Your task to perform on an android device: install app "YouTube Kids" Image 0: 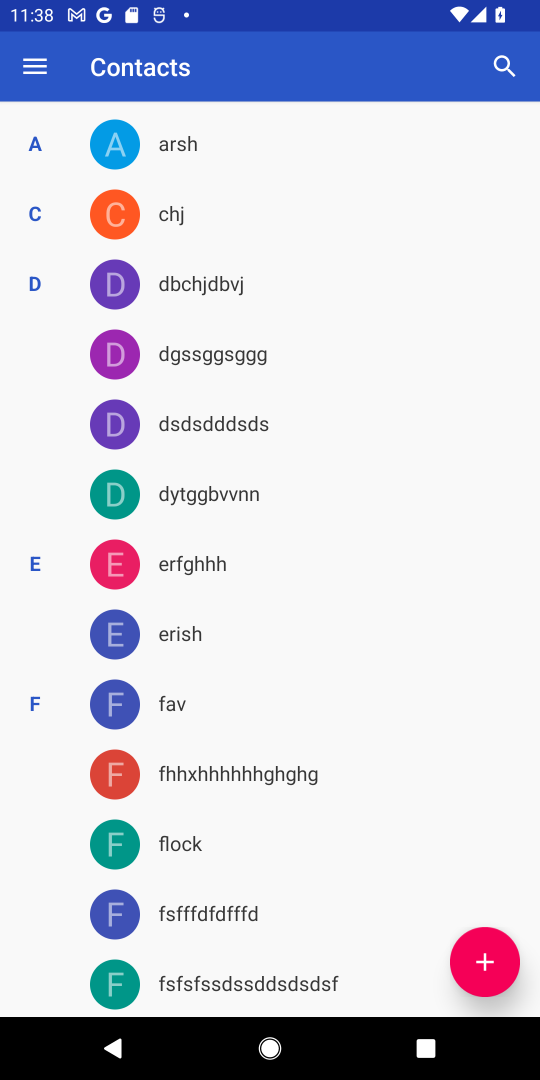
Step 0: press home button
Your task to perform on an android device: install app "YouTube Kids" Image 1: 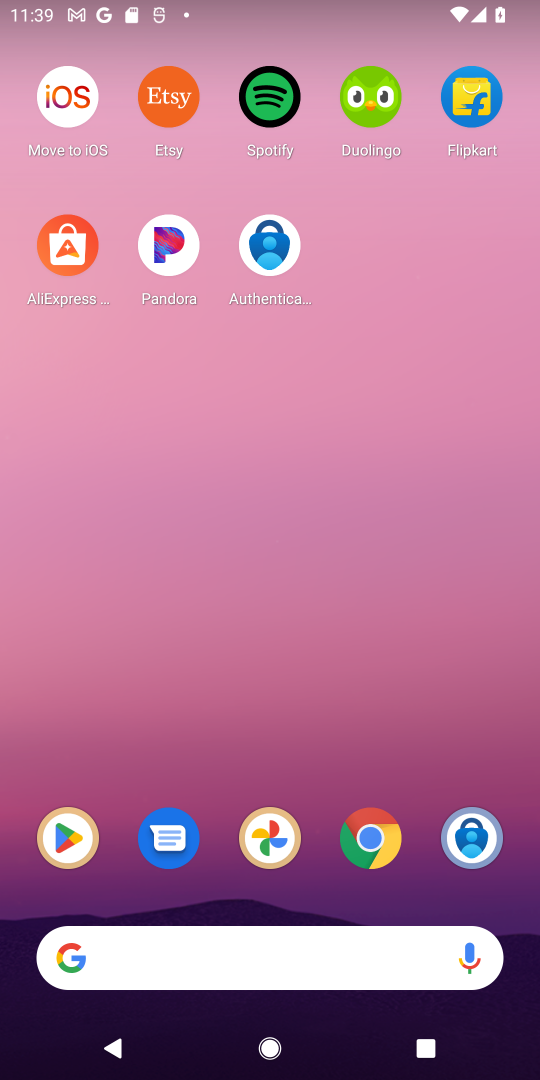
Step 1: click (53, 848)
Your task to perform on an android device: install app "YouTube Kids" Image 2: 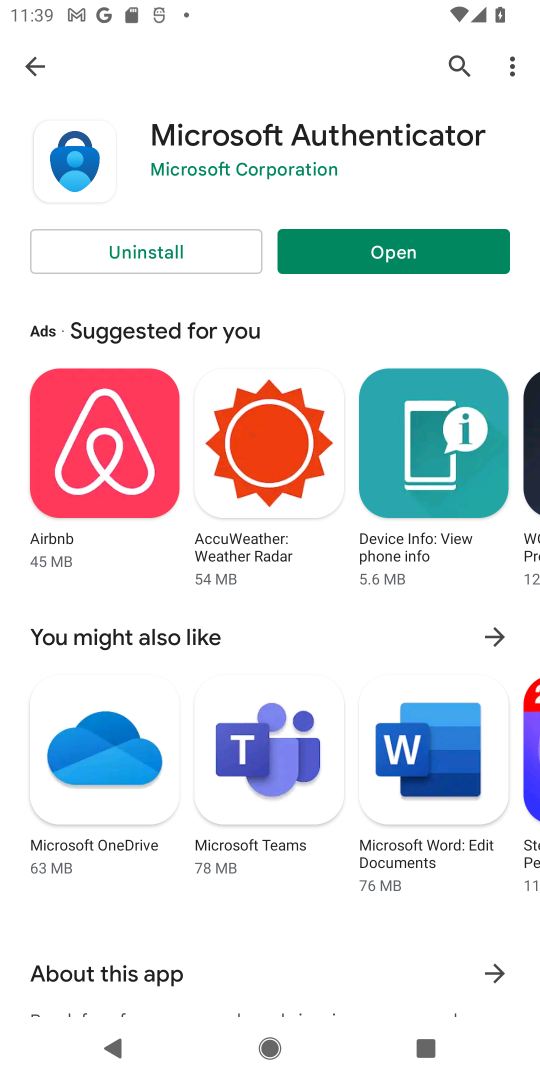
Step 2: click (461, 62)
Your task to perform on an android device: install app "YouTube Kids" Image 3: 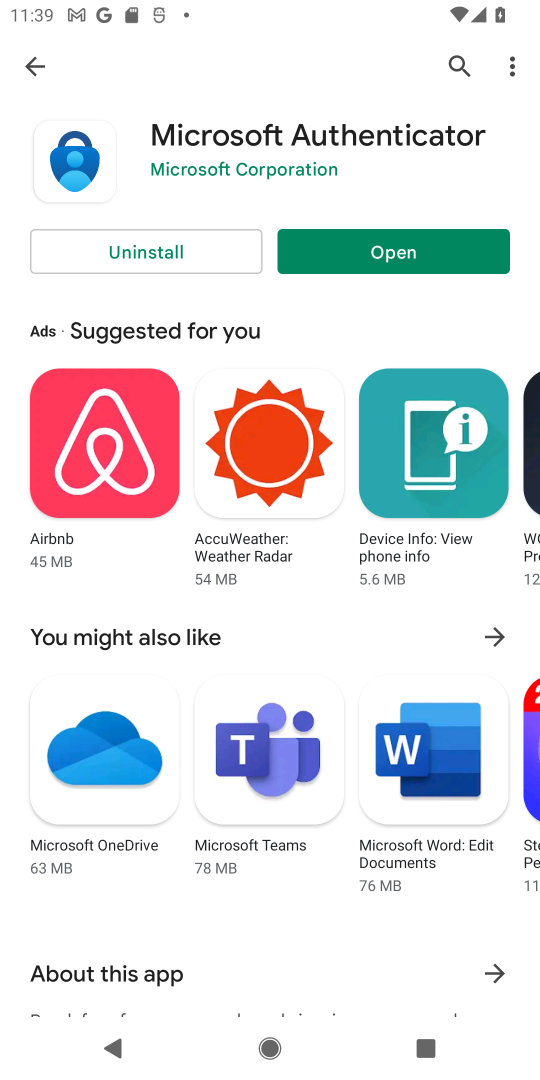
Step 3: click (458, 65)
Your task to perform on an android device: install app "YouTube Kids" Image 4: 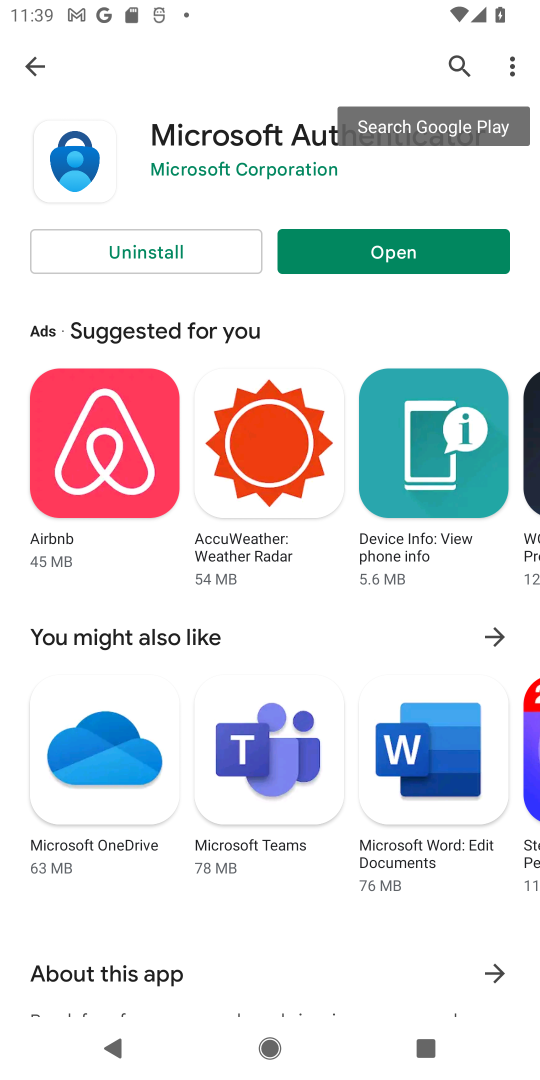
Step 4: click (458, 65)
Your task to perform on an android device: install app "YouTube Kids" Image 5: 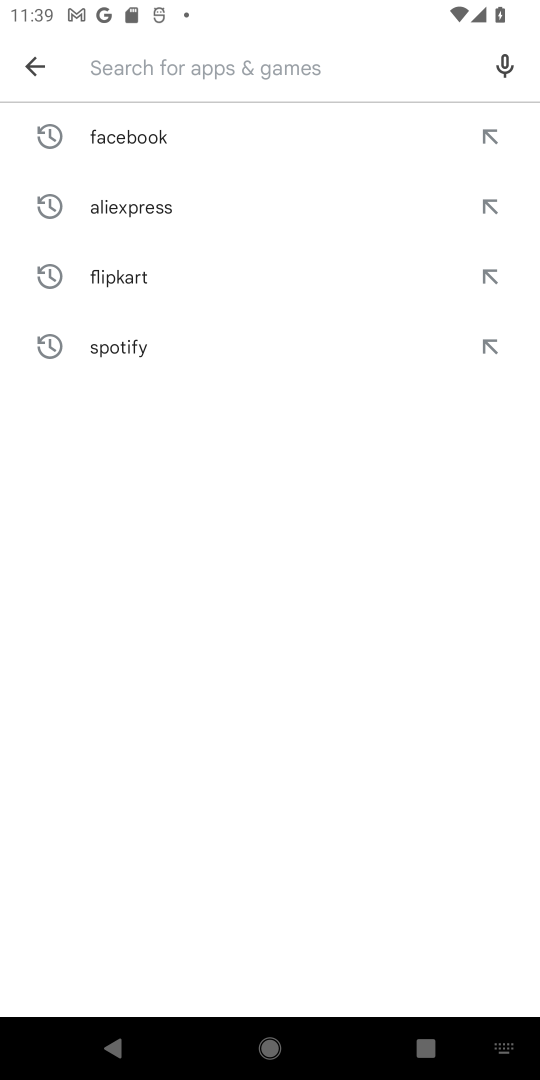
Step 5: type "YouTube Kids"
Your task to perform on an android device: install app "YouTube Kids" Image 6: 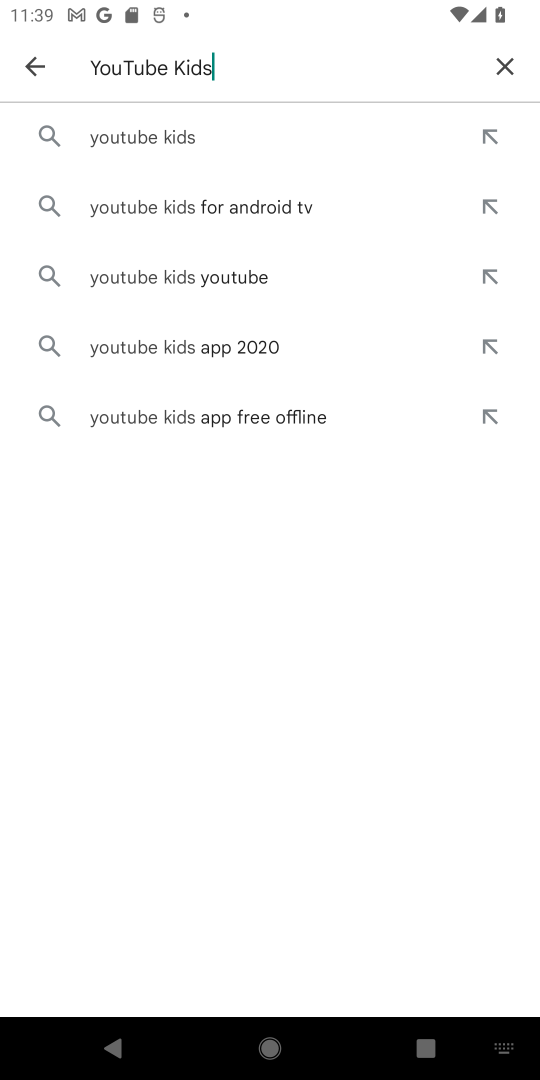
Step 6: click (202, 147)
Your task to perform on an android device: install app "YouTube Kids" Image 7: 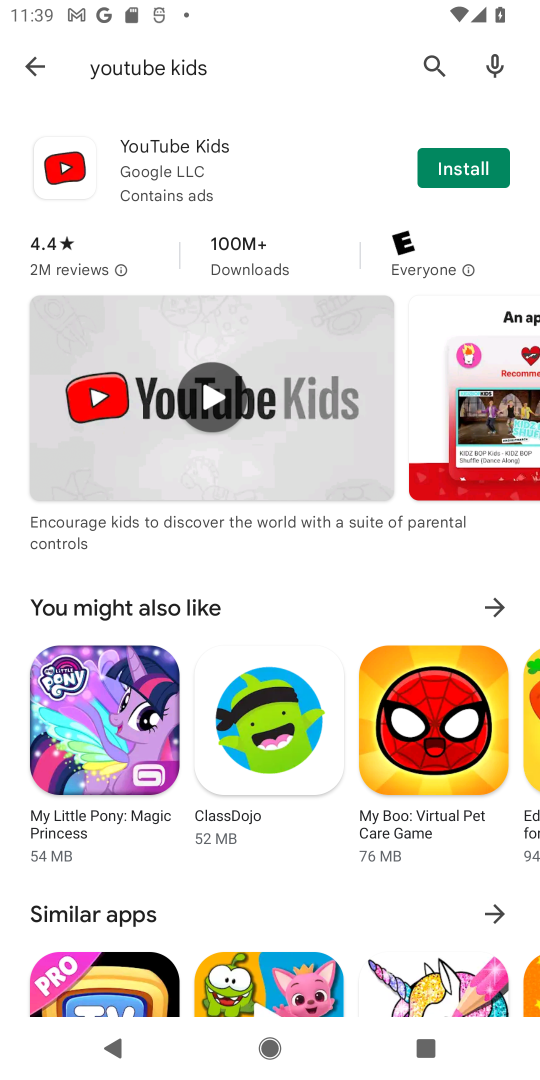
Step 7: click (447, 166)
Your task to perform on an android device: install app "YouTube Kids" Image 8: 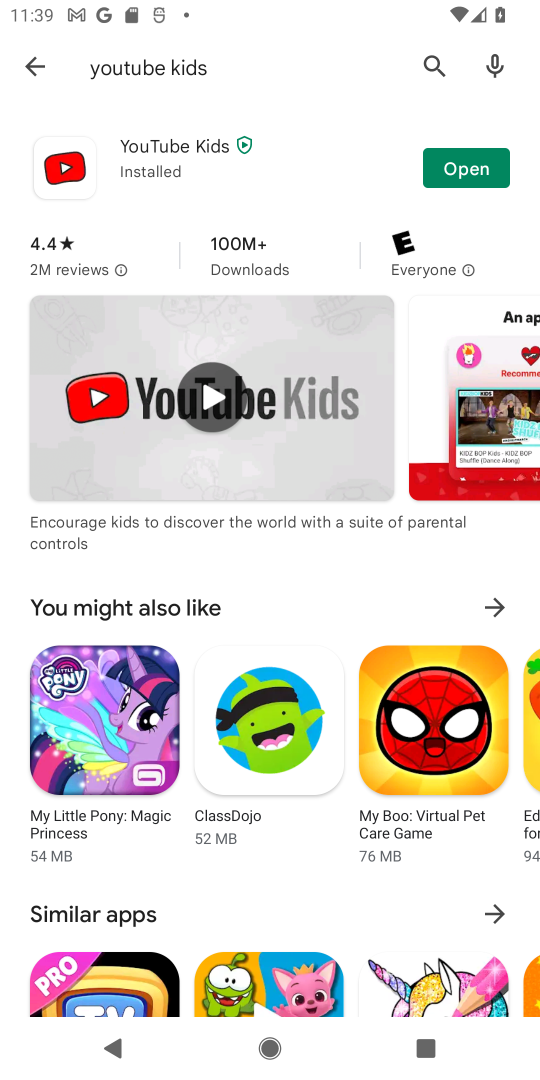
Step 8: task complete